Your task to perform on an android device: turn off improve location accuracy Image 0: 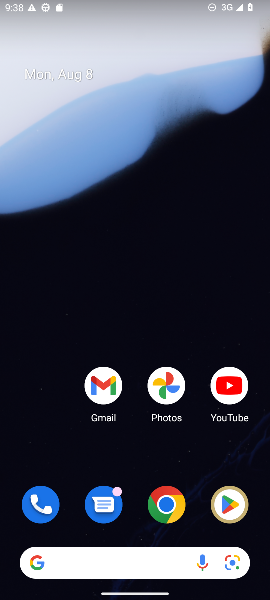
Step 0: drag from (127, 468) to (177, 63)
Your task to perform on an android device: turn off improve location accuracy Image 1: 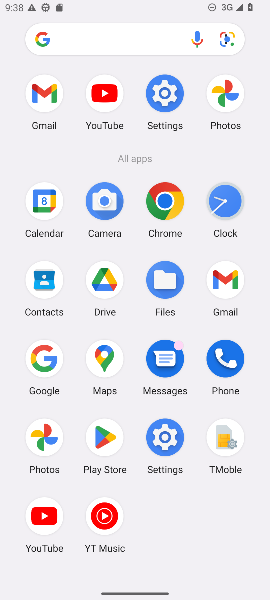
Step 1: click (167, 447)
Your task to perform on an android device: turn off improve location accuracy Image 2: 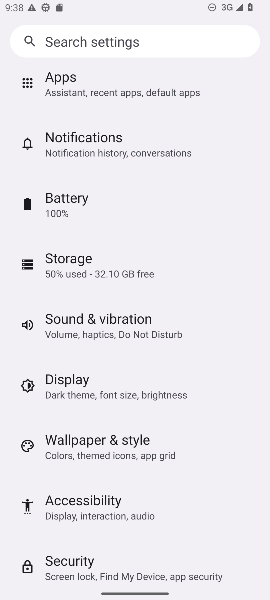
Step 2: drag from (110, 508) to (152, 210)
Your task to perform on an android device: turn off improve location accuracy Image 3: 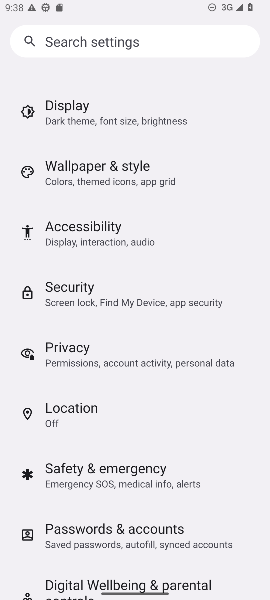
Step 3: click (84, 417)
Your task to perform on an android device: turn off improve location accuracy Image 4: 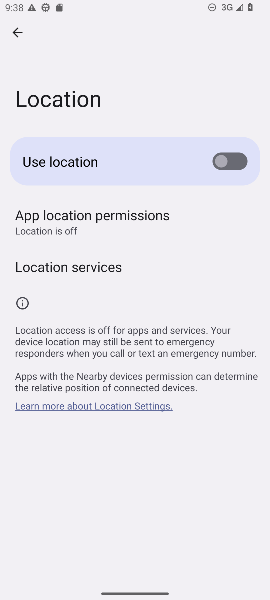
Step 4: click (93, 265)
Your task to perform on an android device: turn off improve location accuracy Image 5: 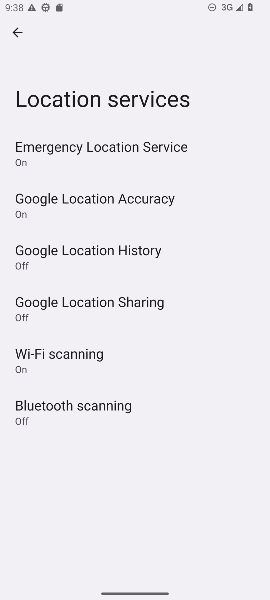
Step 5: click (135, 201)
Your task to perform on an android device: turn off improve location accuracy Image 6: 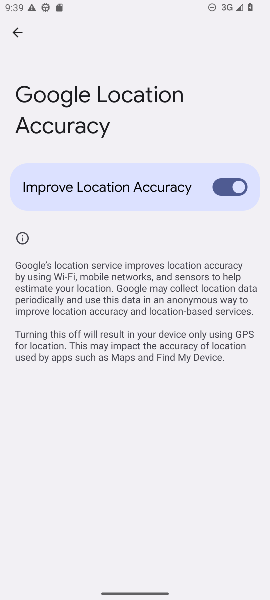
Step 6: click (202, 196)
Your task to perform on an android device: turn off improve location accuracy Image 7: 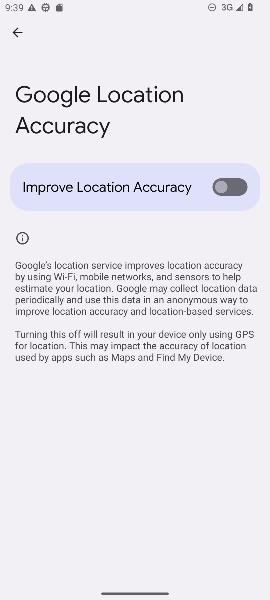
Step 7: task complete